Your task to perform on an android device: What's the weather? Image 0: 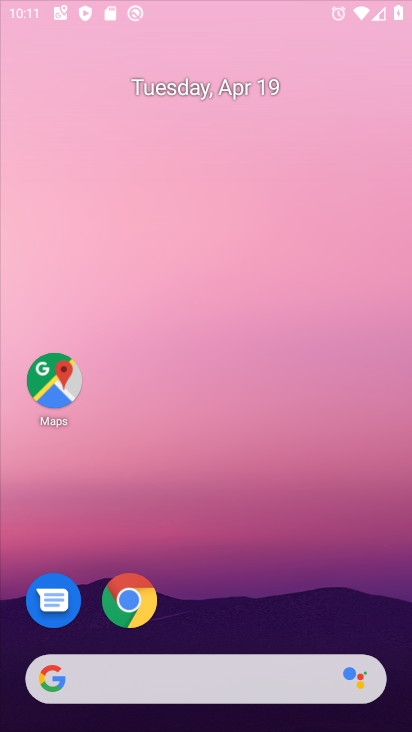
Step 0: drag from (248, 621) to (254, 186)
Your task to perform on an android device: What's the weather? Image 1: 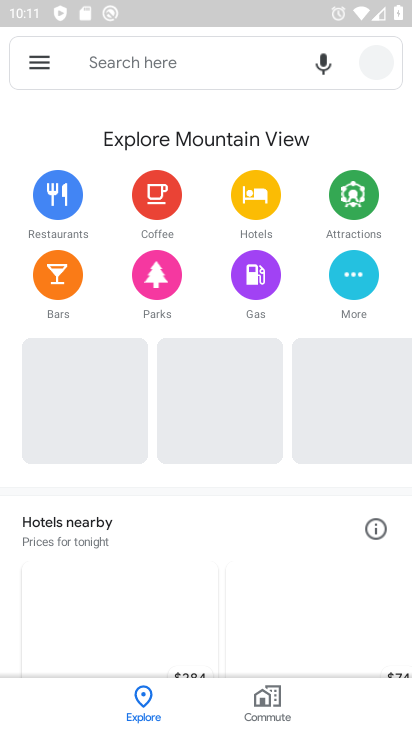
Step 1: press home button
Your task to perform on an android device: What's the weather? Image 2: 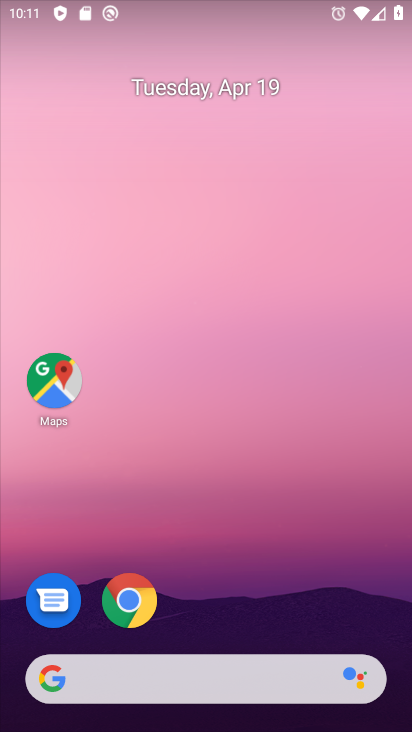
Step 2: click (166, 678)
Your task to perform on an android device: What's the weather? Image 3: 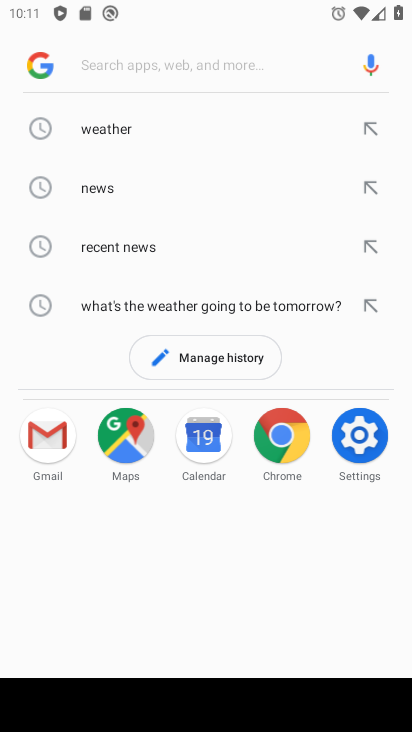
Step 3: click (183, 127)
Your task to perform on an android device: What's the weather? Image 4: 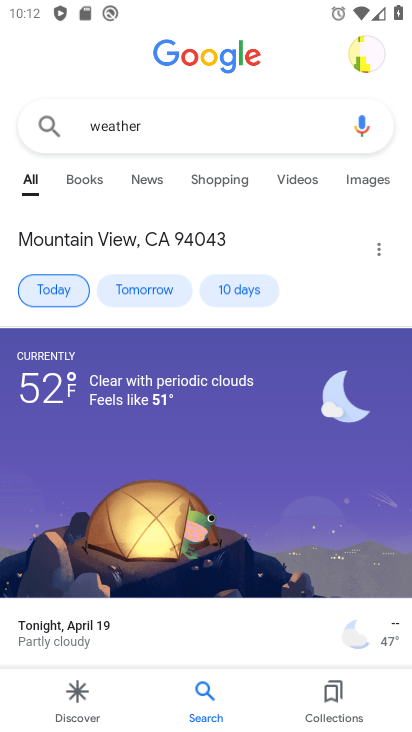
Step 4: task complete